Your task to perform on an android device: set the stopwatch Image 0: 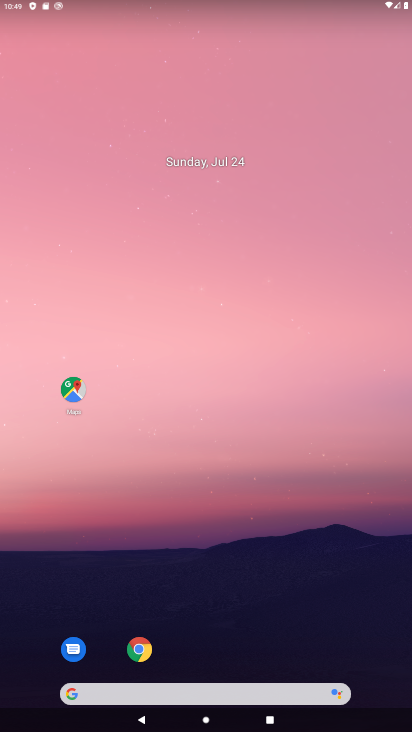
Step 0: drag from (240, 660) to (217, 256)
Your task to perform on an android device: set the stopwatch Image 1: 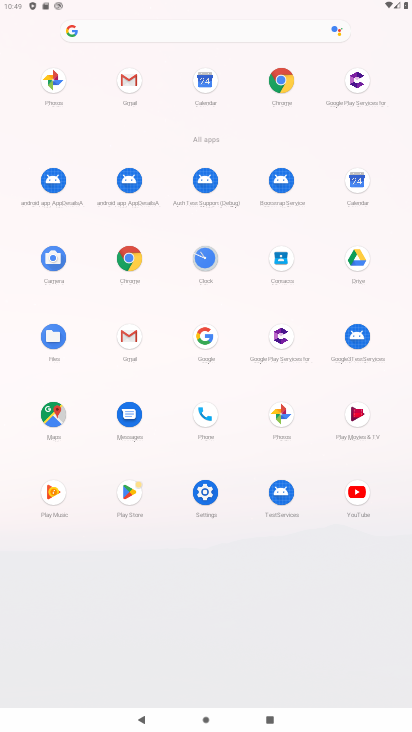
Step 1: click (214, 262)
Your task to perform on an android device: set the stopwatch Image 2: 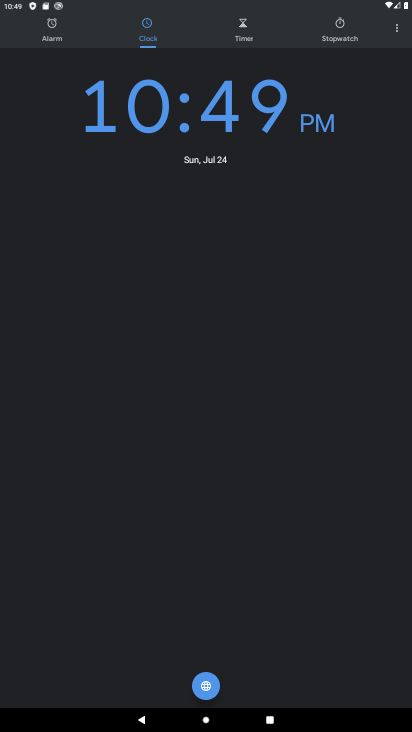
Step 2: click (347, 30)
Your task to perform on an android device: set the stopwatch Image 3: 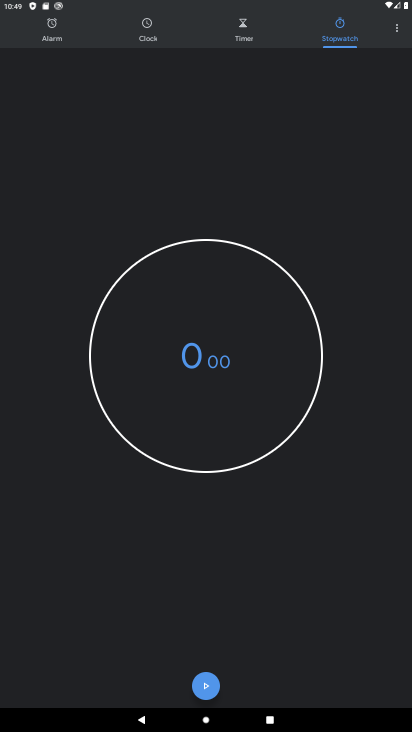
Step 3: click (209, 691)
Your task to perform on an android device: set the stopwatch Image 4: 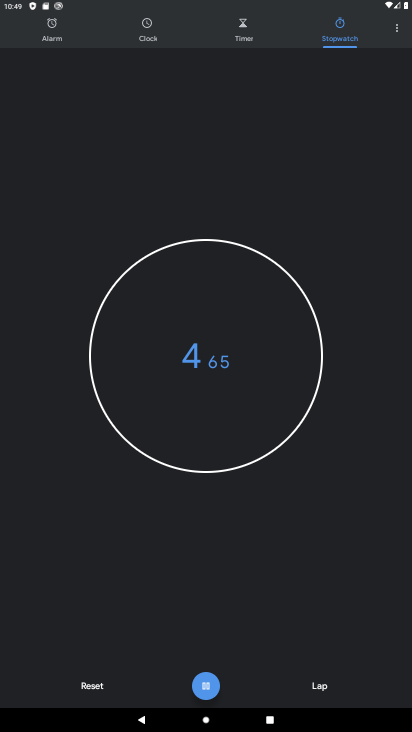
Step 4: task complete